Your task to perform on an android device: Open Chrome and go to settings Image 0: 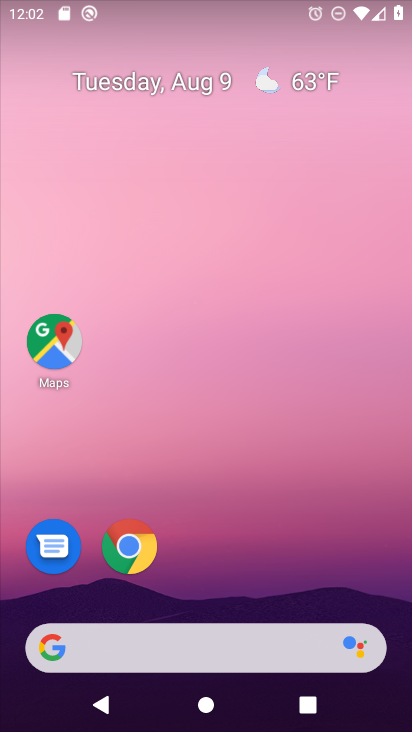
Step 0: press home button
Your task to perform on an android device: Open Chrome and go to settings Image 1: 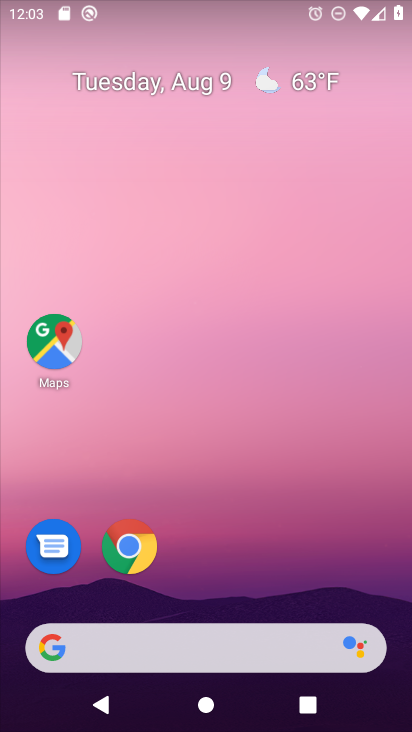
Step 1: drag from (213, 605) to (218, 7)
Your task to perform on an android device: Open Chrome and go to settings Image 2: 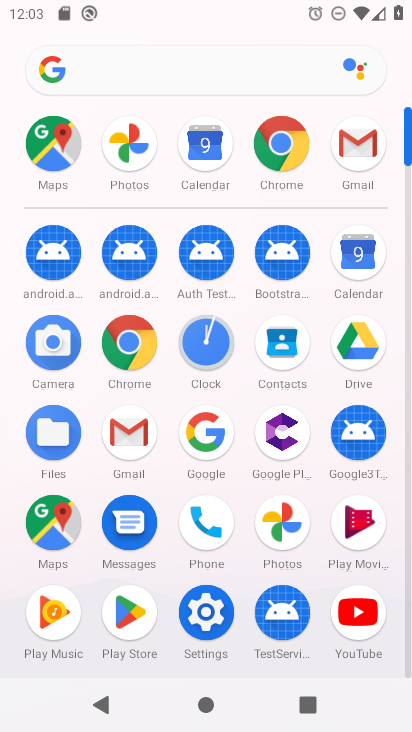
Step 2: click (273, 132)
Your task to perform on an android device: Open Chrome and go to settings Image 3: 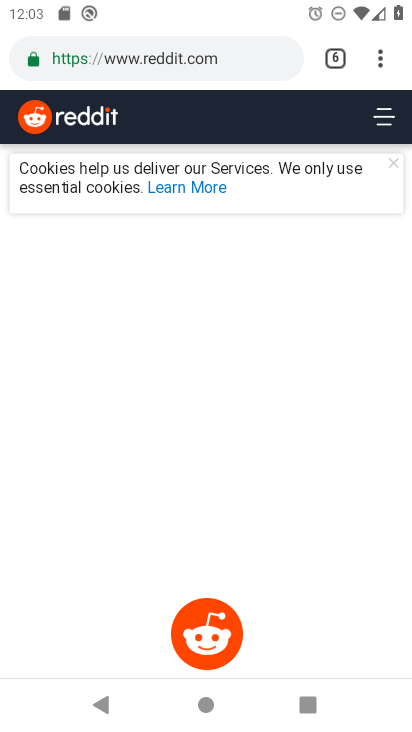
Step 3: click (374, 58)
Your task to perform on an android device: Open Chrome and go to settings Image 4: 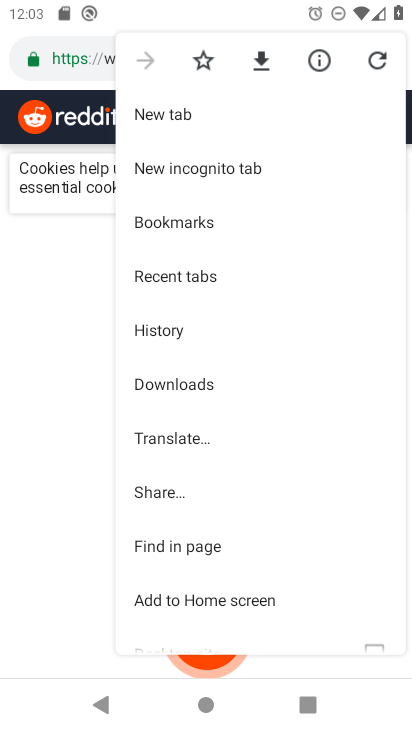
Step 4: drag from (265, 598) to (247, 146)
Your task to perform on an android device: Open Chrome and go to settings Image 5: 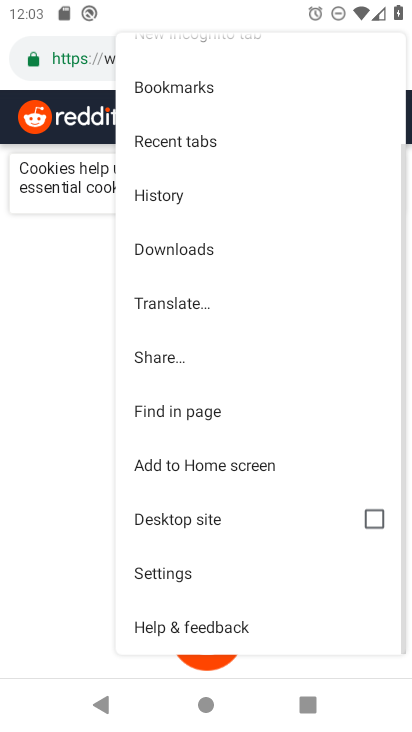
Step 5: click (194, 574)
Your task to perform on an android device: Open Chrome and go to settings Image 6: 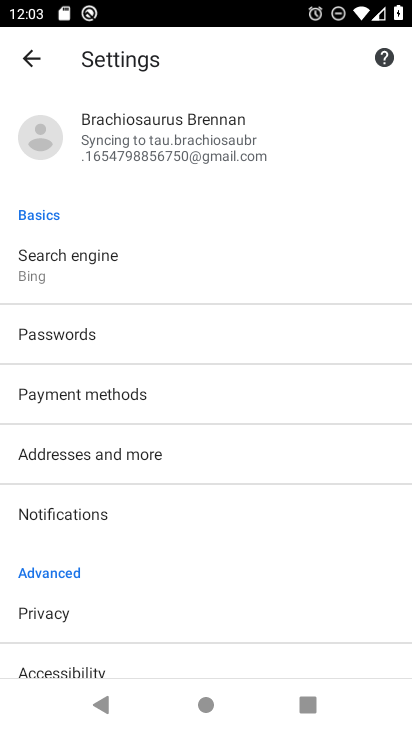
Step 6: task complete